Your task to perform on an android device: Open Yahoo.com Image 0: 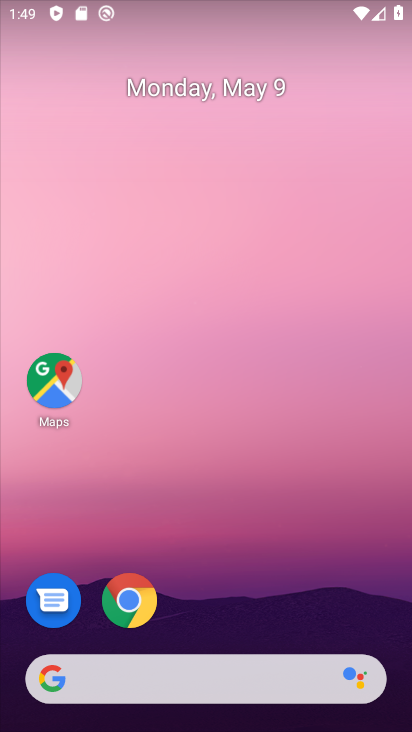
Step 0: drag from (284, 593) to (206, 0)
Your task to perform on an android device: Open Yahoo.com Image 1: 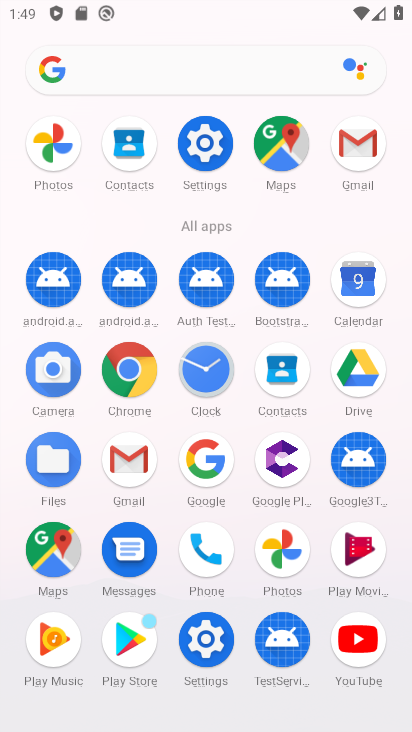
Step 1: drag from (1, 593) to (4, 349)
Your task to perform on an android device: Open Yahoo.com Image 2: 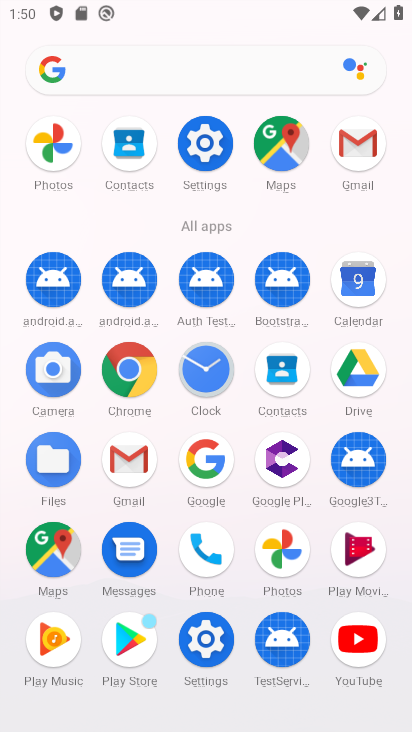
Step 2: drag from (13, 544) to (41, 225)
Your task to perform on an android device: Open Yahoo.com Image 3: 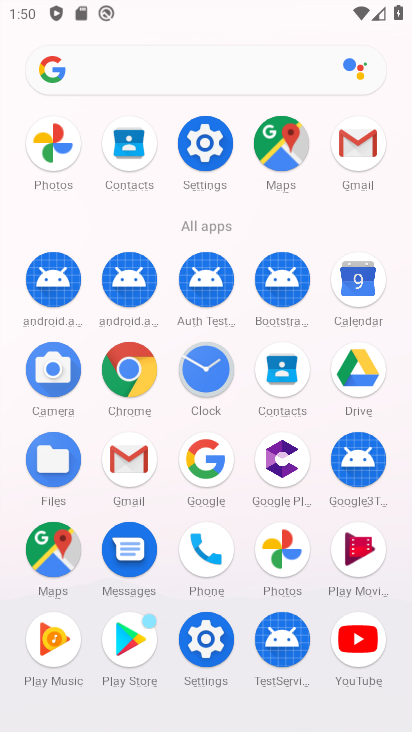
Step 3: drag from (6, 543) to (11, 276)
Your task to perform on an android device: Open Yahoo.com Image 4: 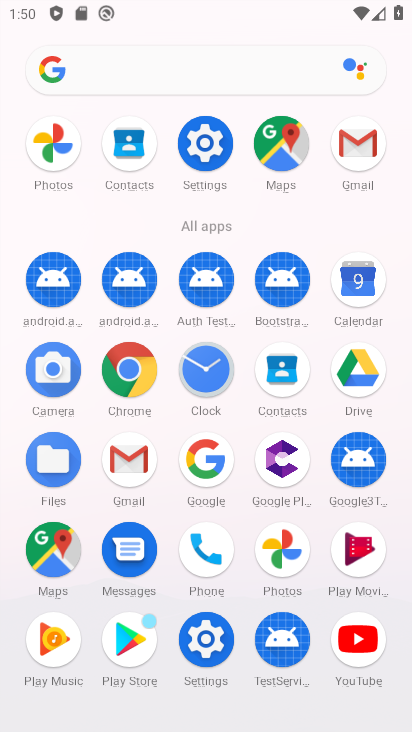
Step 4: click (125, 366)
Your task to perform on an android device: Open Yahoo.com Image 5: 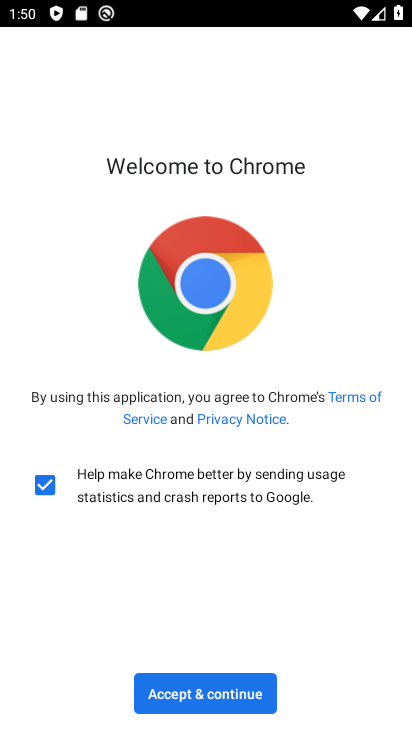
Step 5: click (218, 682)
Your task to perform on an android device: Open Yahoo.com Image 6: 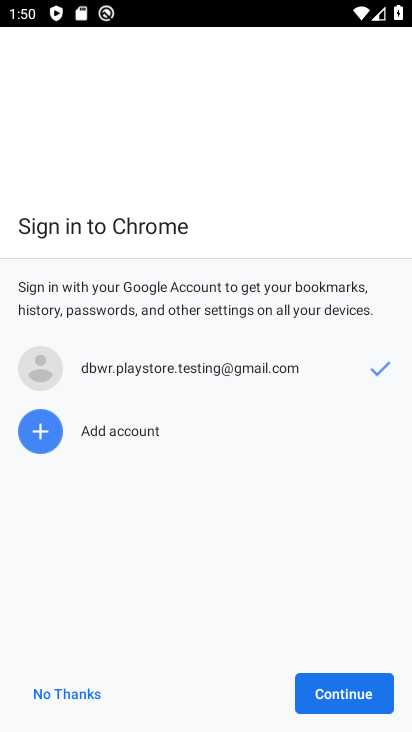
Step 6: click (340, 690)
Your task to perform on an android device: Open Yahoo.com Image 7: 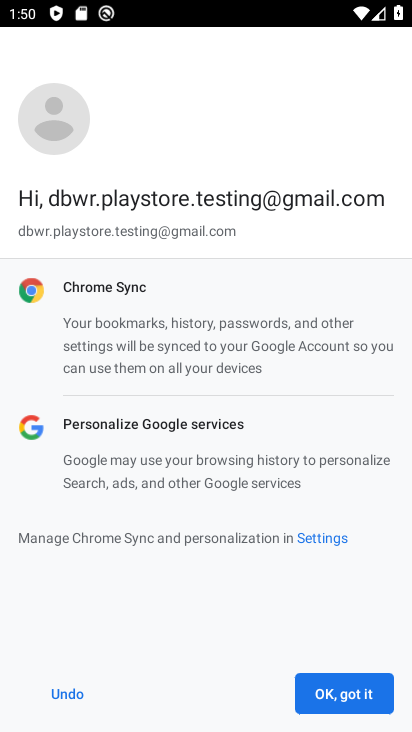
Step 7: click (340, 690)
Your task to perform on an android device: Open Yahoo.com Image 8: 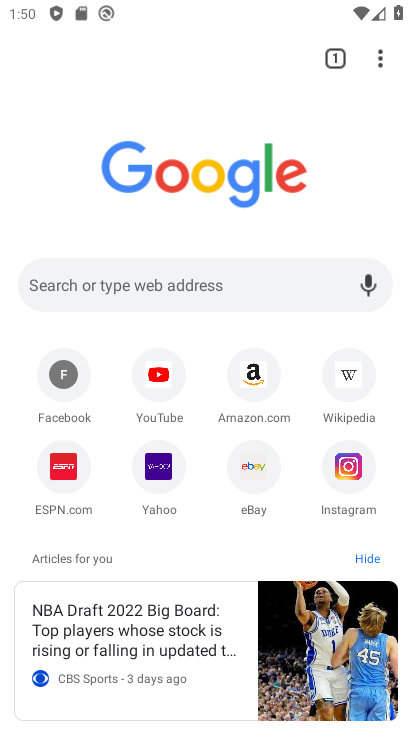
Step 8: click (163, 468)
Your task to perform on an android device: Open Yahoo.com Image 9: 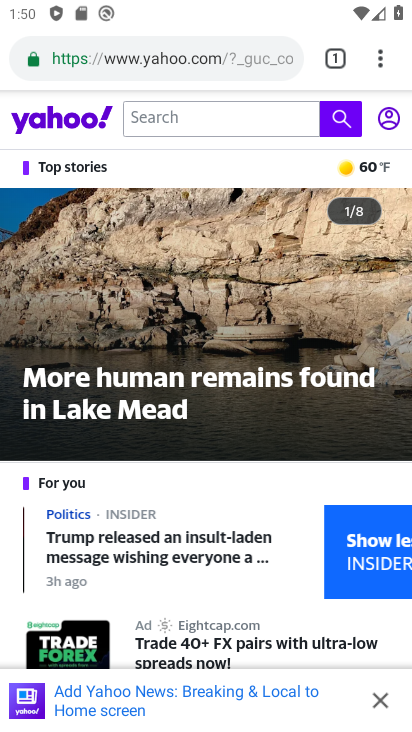
Step 9: click (144, 44)
Your task to perform on an android device: Open Yahoo.com Image 10: 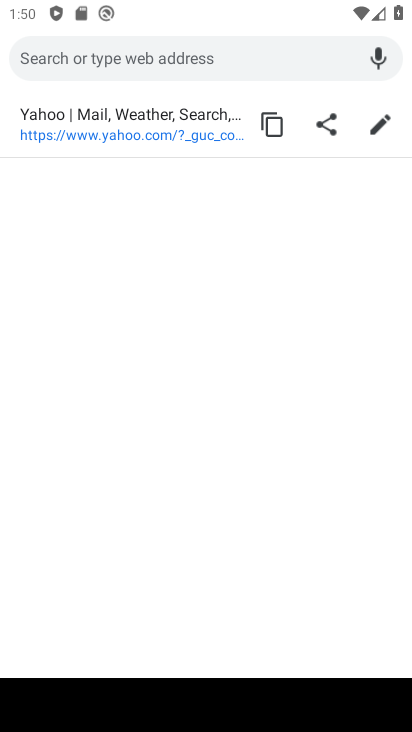
Step 10: click (69, 107)
Your task to perform on an android device: Open Yahoo.com Image 11: 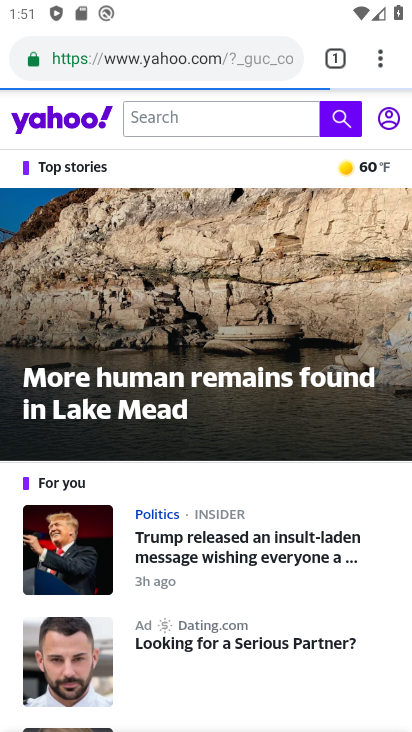
Step 11: task complete